Your task to perform on an android device: Open calendar and show me the fourth week of next month Image 0: 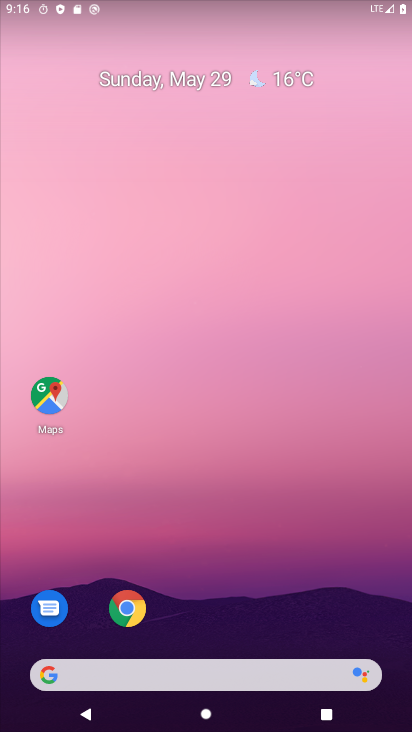
Step 0: drag from (204, 616) to (165, 28)
Your task to perform on an android device: Open calendar and show me the fourth week of next month Image 1: 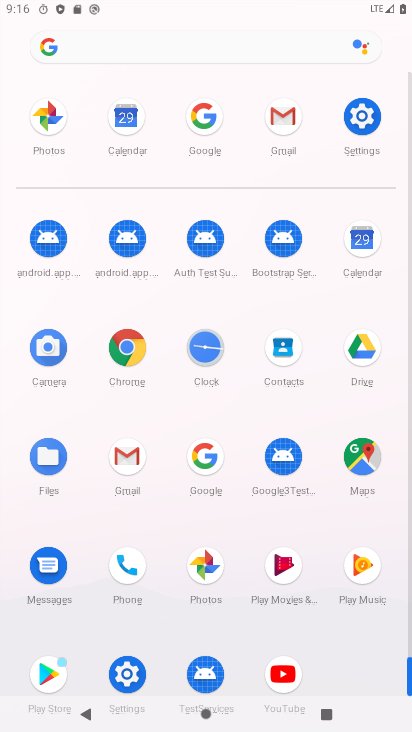
Step 1: click (353, 253)
Your task to perform on an android device: Open calendar and show me the fourth week of next month Image 2: 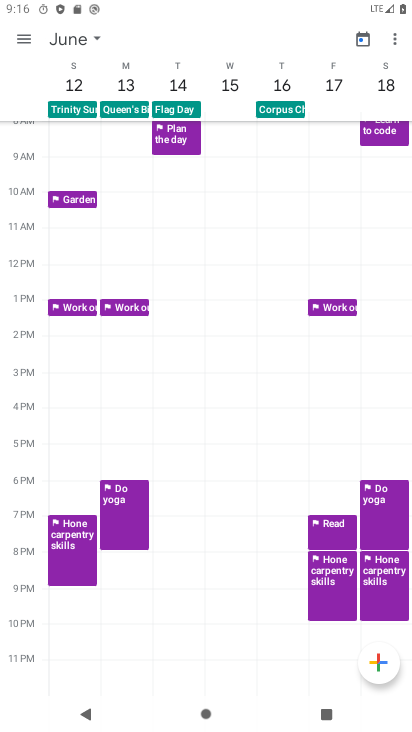
Step 2: click (87, 39)
Your task to perform on an android device: Open calendar and show me the fourth week of next month Image 3: 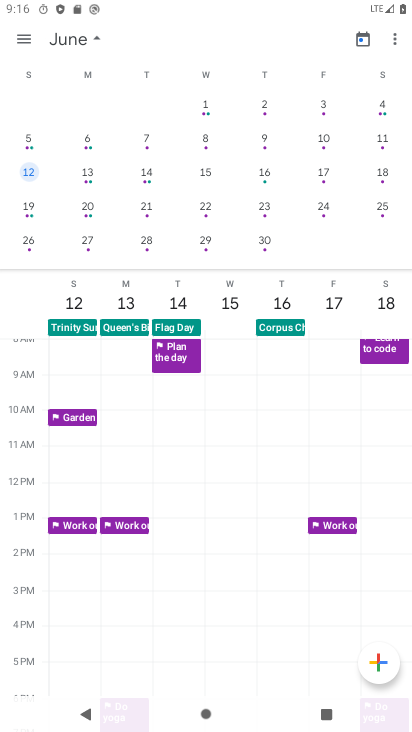
Step 3: click (32, 241)
Your task to perform on an android device: Open calendar and show me the fourth week of next month Image 4: 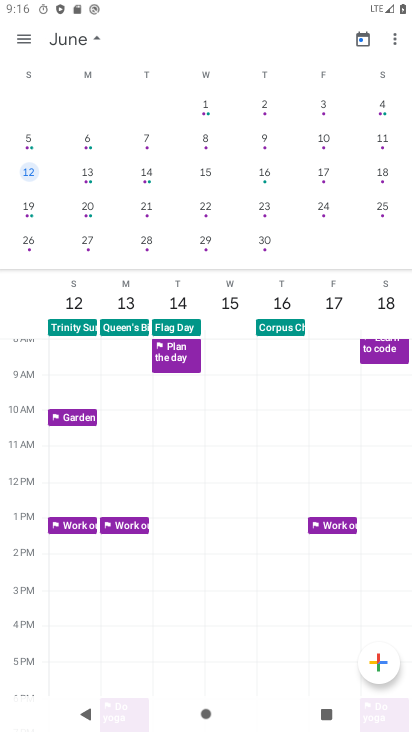
Step 4: click (21, 235)
Your task to perform on an android device: Open calendar and show me the fourth week of next month Image 5: 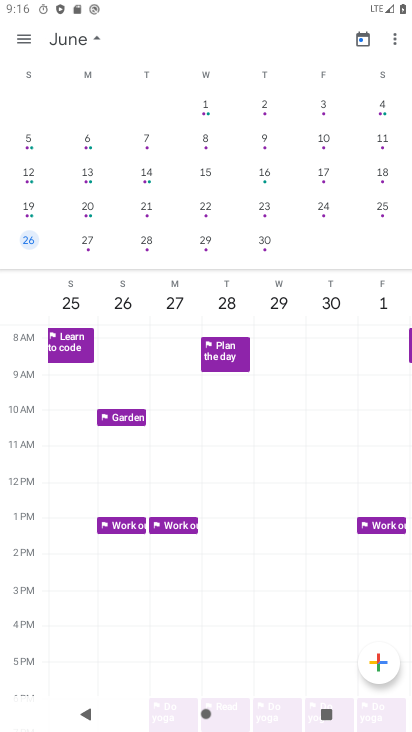
Step 5: click (21, 235)
Your task to perform on an android device: Open calendar and show me the fourth week of next month Image 6: 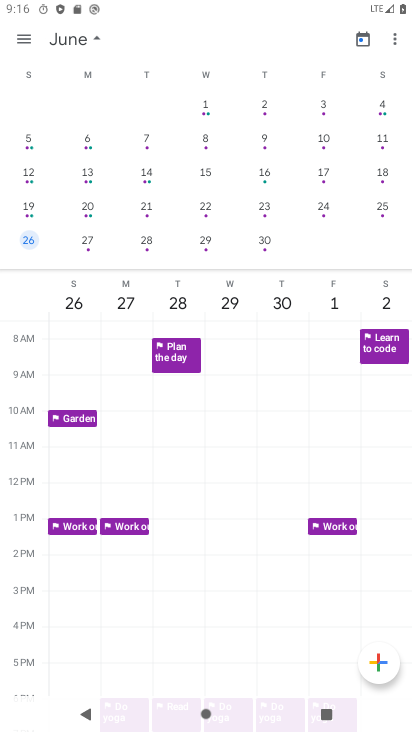
Step 6: task complete